Your task to perform on an android device: Show me productivity apps on the Play Store Image 0: 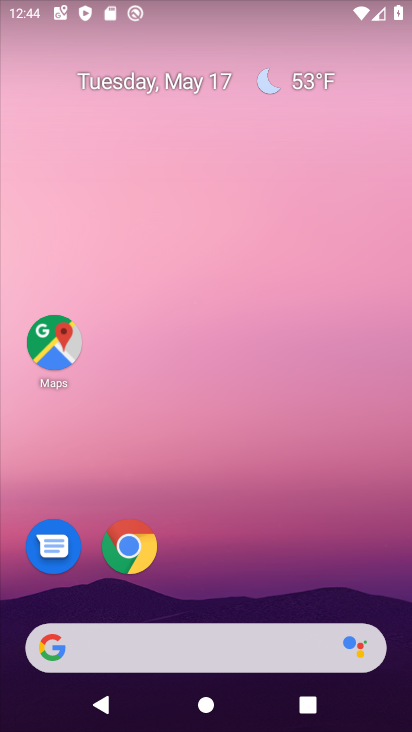
Step 0: drag from (238, 565) to (230, 147)
Your task to perform on an android device: Show me productivity apps on the Play Store Image 1: 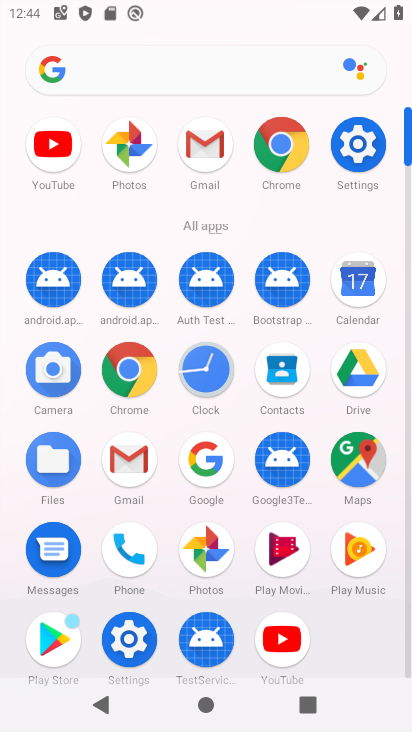
Step 1: click (38, 650)
Your task to perform on an android device: Show me productivity apps on the Play Store Image 2: 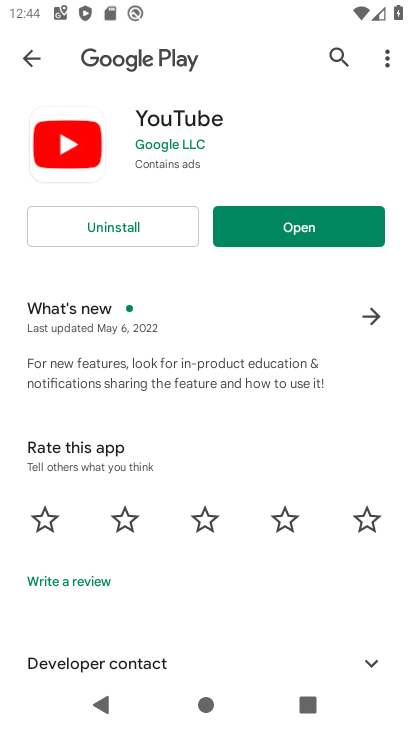
Step 2: click (16, 62)
Your task to perform on an android device: Show me productivity apps on the Play Store Image 3: 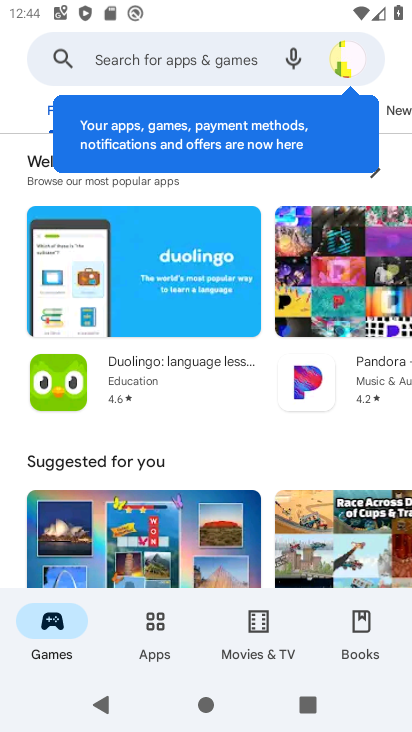
Step 3: click (160, 622)
Your task to perform on an android device: Show me productivity apps on the Play Store Image 4: 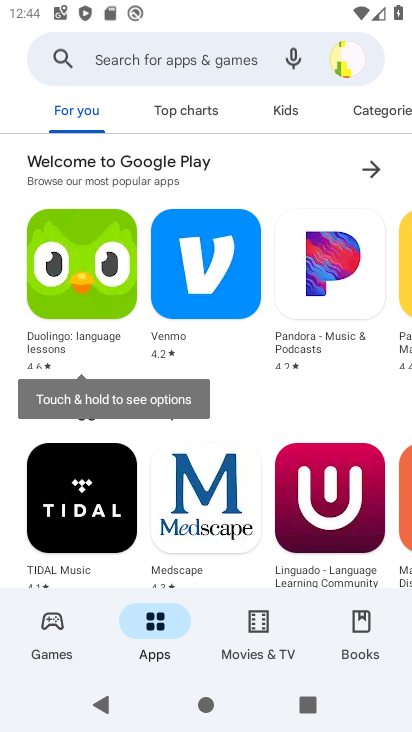
Step 4: click (366, 114)
Your task to perform on an android device: Show me productivity apps on the Play Store Image 5: 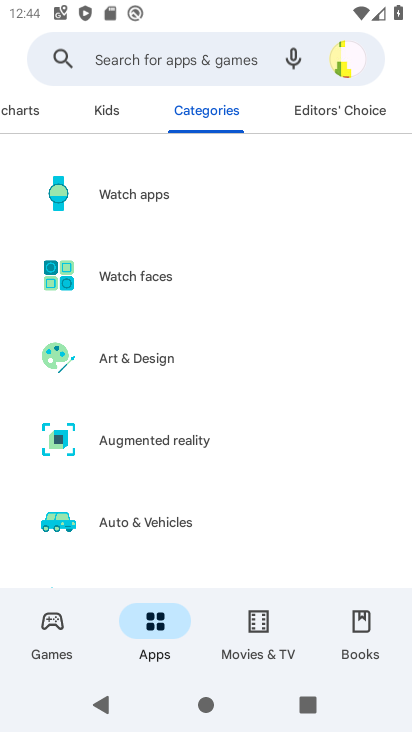
Step 5: drag from (204, 537) to (222, 343)
Your task to perform on an android device: Show me productivity apps on the Play Store Image 6: 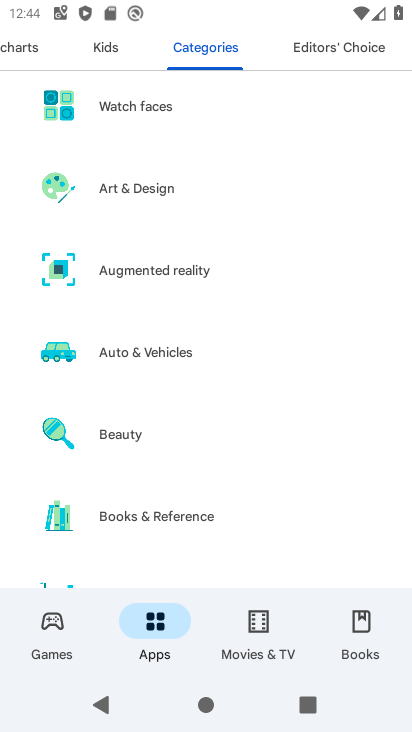
Step 6: drag from (230, 517) to (228, 289)
Your task to perform on an android device: Show me productivity apps on the Play Store Image 7: 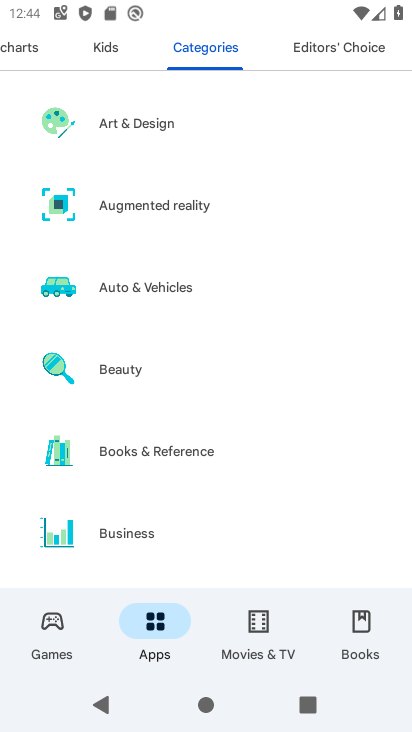
Step 7: drag from (227, 485) to (239, 303)
Your task to perform on an android device: Show me productivity apps on the Play Store Image 8: 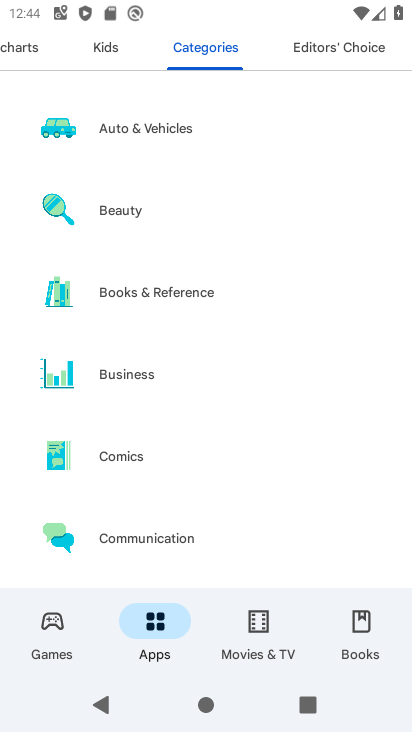
Step 8: drag from (219, 490) to (237, 305)
Your task to perform on an android device: Show me productivity apps on the Play Store Image 9: 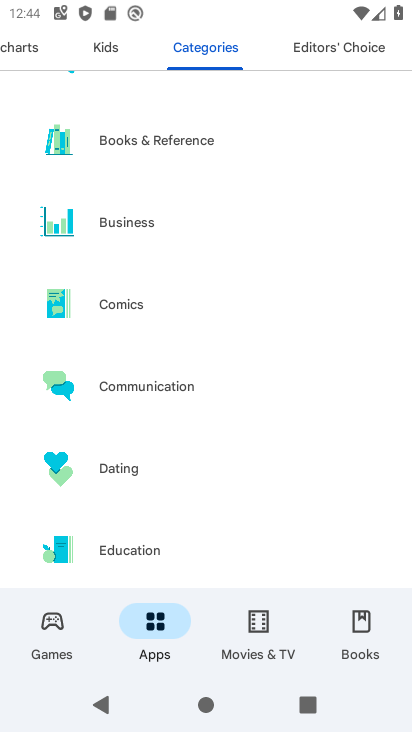
Step 9: drag from (221, 521) to (260, 178)
Your task to perform on an android device: Show me productivity apps on the Play Store Image 10: 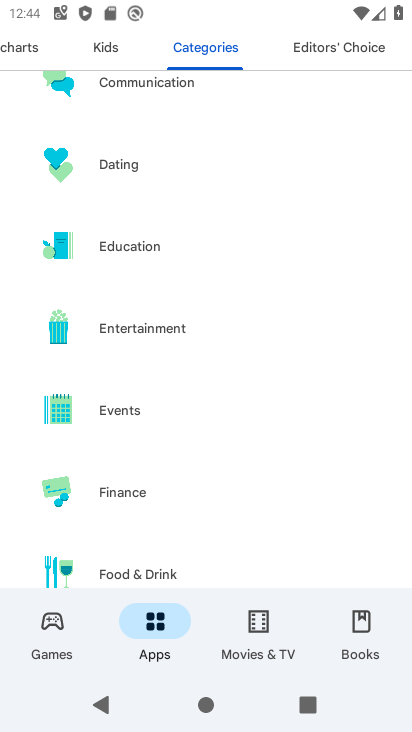
Step 10: drag from (233, 478) to (270, 202)
Your task to perform on an android device: Show me productivity apps on the Play Store Image 11: 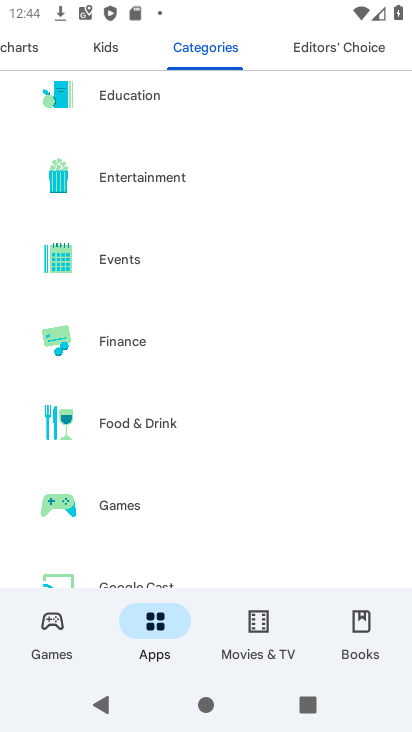
Step 11: drag from (236, 480) to (251, 66)
Your task to perform on an android device: Show me productivity apps on the Play Store Image 12: 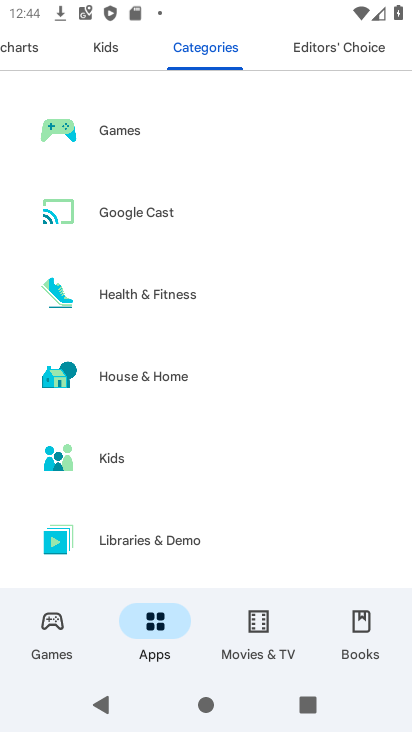
Step 12: drag from (182, 429) to (186, 176)
Your task to perform on an android device: Show me productivity apps on the Play Store Image 13: 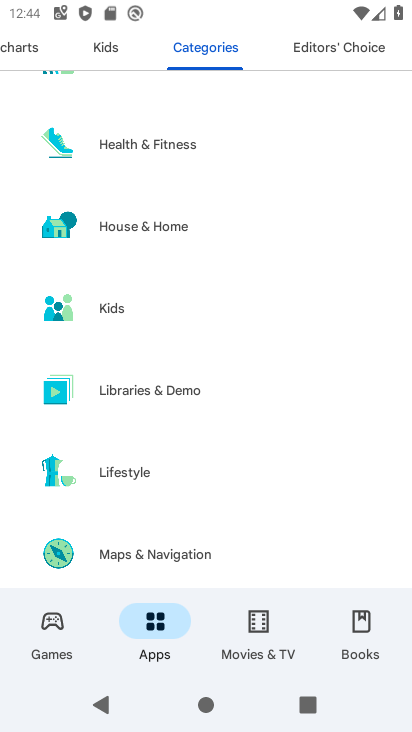
Step 13: drag from (177, 526) to (190, 246)
Your task to perform on an android device: Show me productivity apps on the Play Store Image 14: 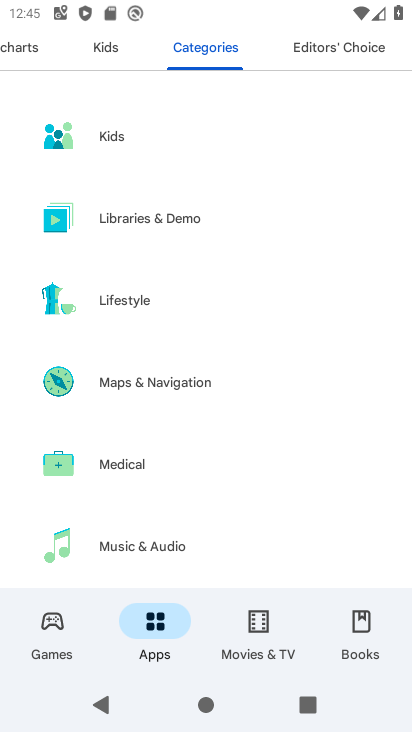
Step 14: drag from (177, 495) to (198, 307)
Your task to perform on an android device: Show me productivity apps on the Play Store Image 15: 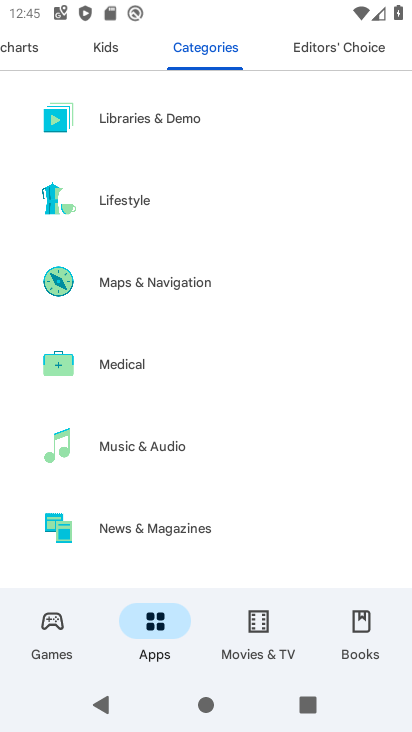
Step 15: drag from (179, 526) to (197, 250)
Your task to perform on an android device: Show me productivity apps on the Play Store Image 16: 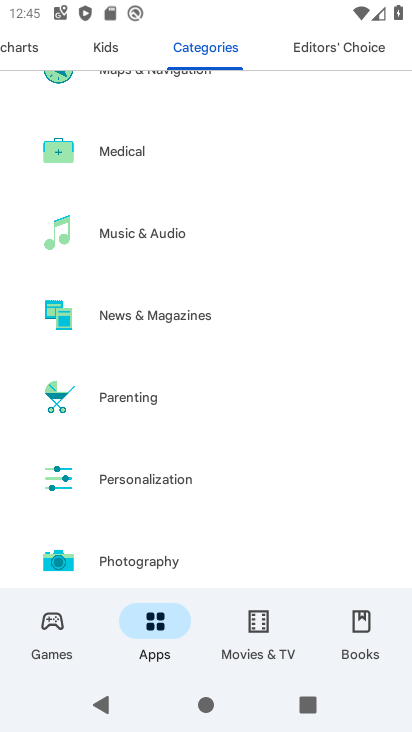
Step 16: drag from (180, 548) to (202, 332)
Your task to perform on an android device: Show me productivity apps on the Play Store Image 17: 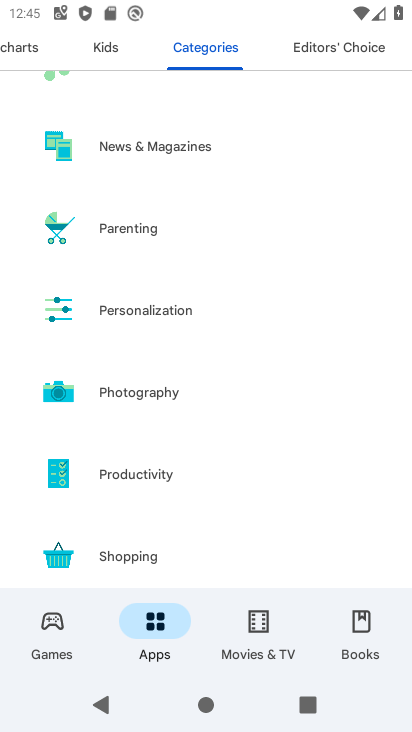
Step 17: click (159, 474)
Your task to perform on an android device: Show me productivity apps on the Play Store Image 18: 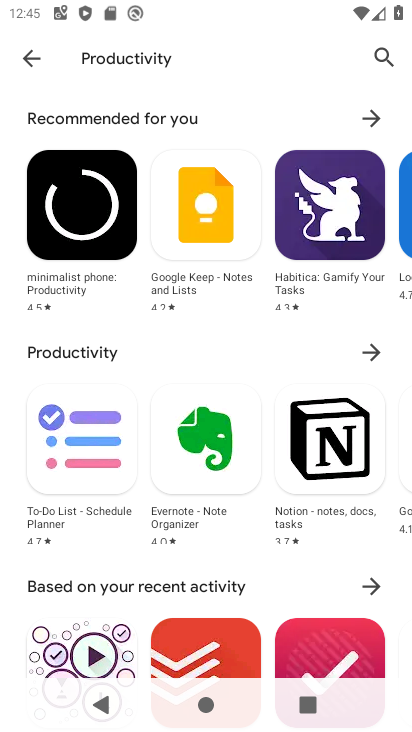
Step 18: task complete